Your task to perform on an android device: turn notification dots on Image 0: 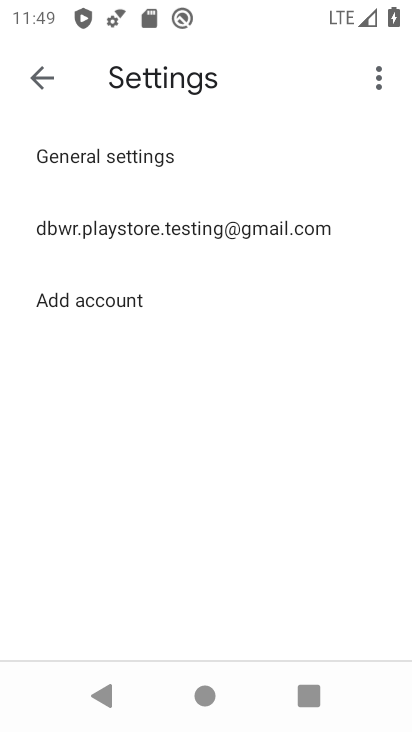
Step 0: press home button
Your task to perform on an android device: turn notification dots on Image 1: 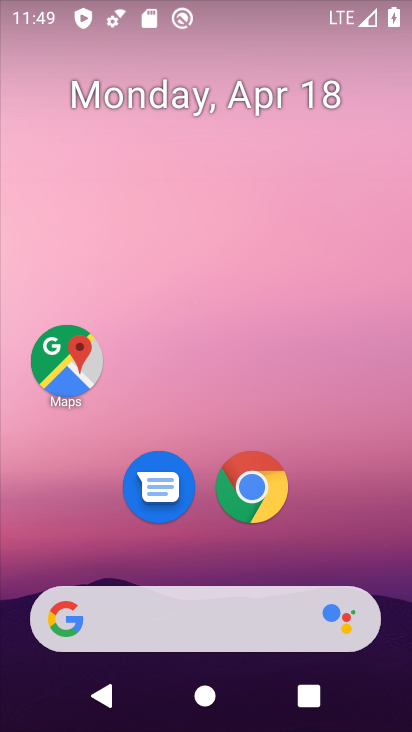
Step 1: drag from (209, 560) to (273, 3)
Your task to perform on an android device: turn notification dots on Image 2: 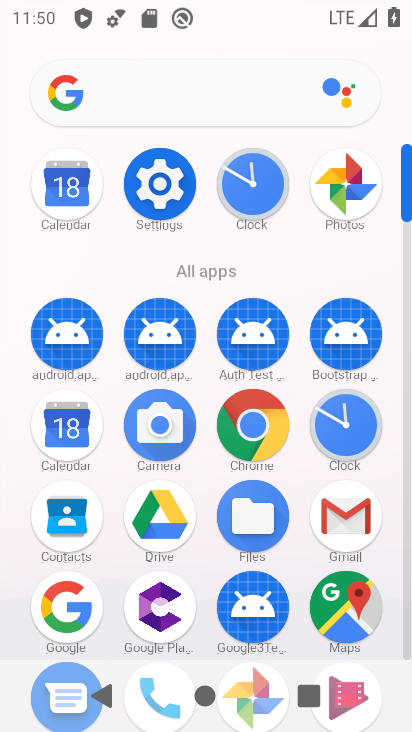
Step 2: click (161, 184)
Your task to perform on an android device: turn notification dots on Image 3: 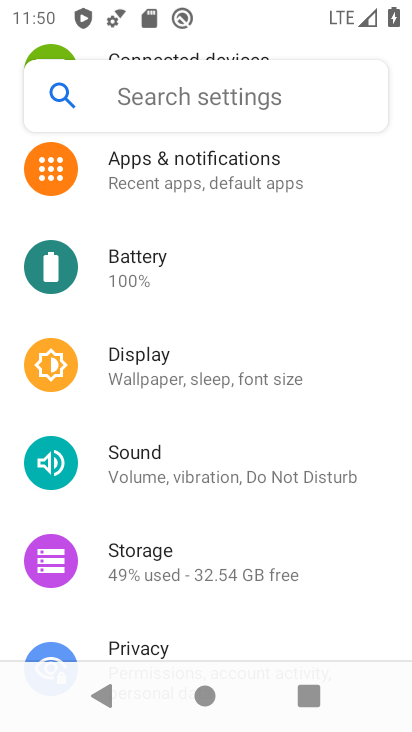
Step 3: click (197, 157)
Your task to perform on an android device: turn notification dots on Image 4: 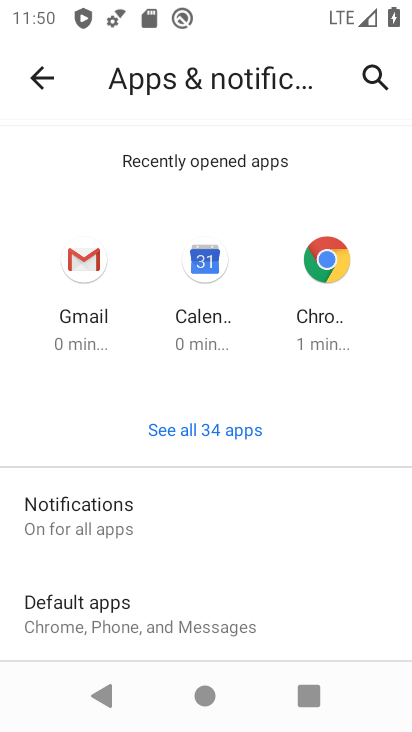
Step 4: drag from (193, 551) to (174, 148)
Your task to perform on an android device: turn notification dots on Image 5: 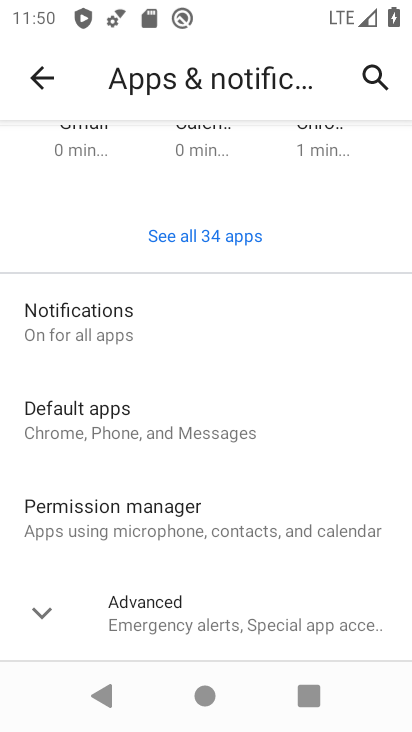
Step 5: click (73, 308)
Your task to perform on an android device: turn notification dots on Image 6: 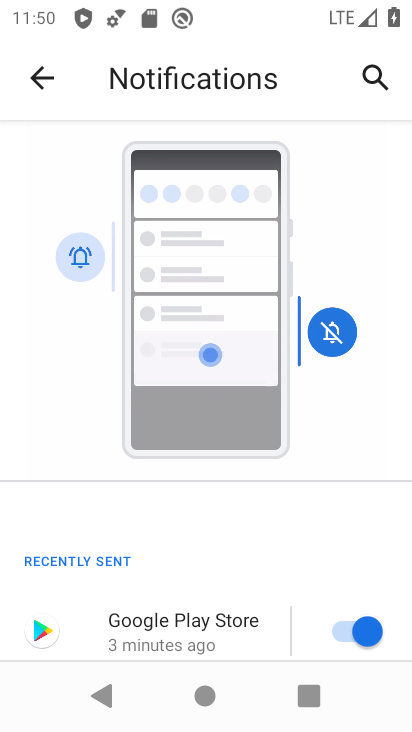
Step 6: drag from (172, 570) to (163, 200)
Your task to perform on an android device: turn notification dots on Image 7: 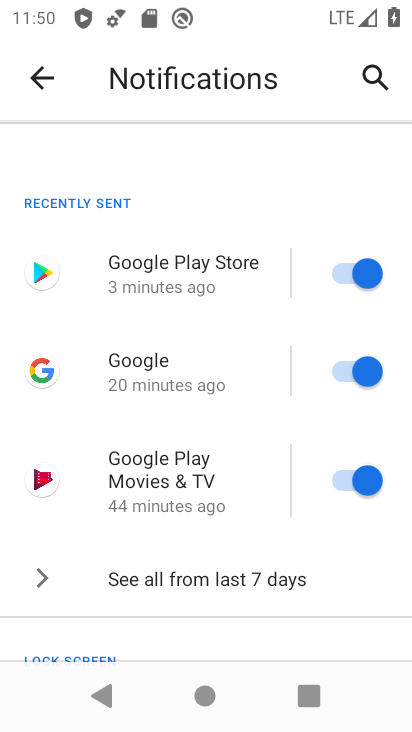
Step 7: drag from (187, 530) to (176, 190)
Your task to perform on an android device: turn notification dots on Image 8: 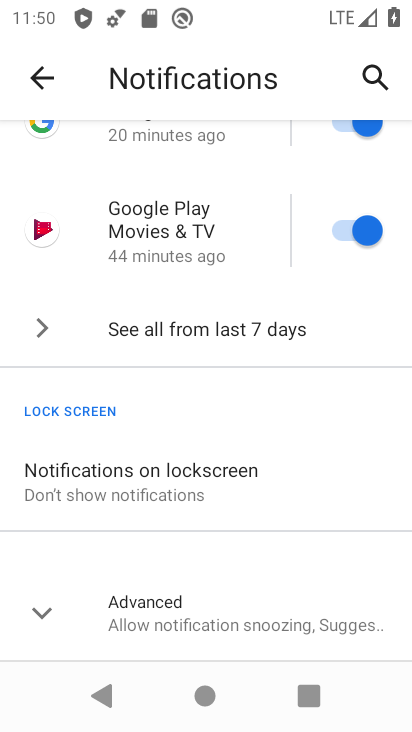
Step 8: click (41, 600)
Your task to perform on an android device: turn notification dots on Image 9: 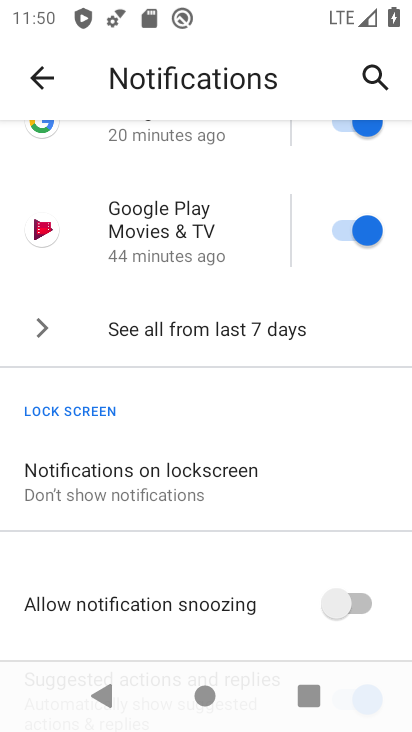
Step 9: task complete